Your task to perform on an android device: toggle improve location accuracy Image 0: 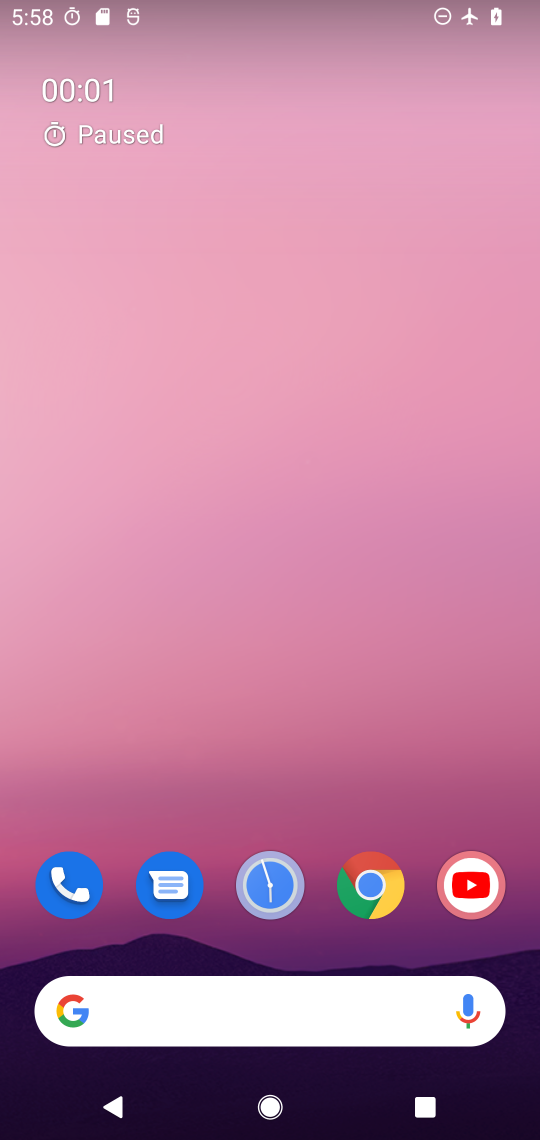
Step 0: drag from (243, 1019) to (243, 177)
Your task to perform on an android device: toggle improve location accuracy Image 1: 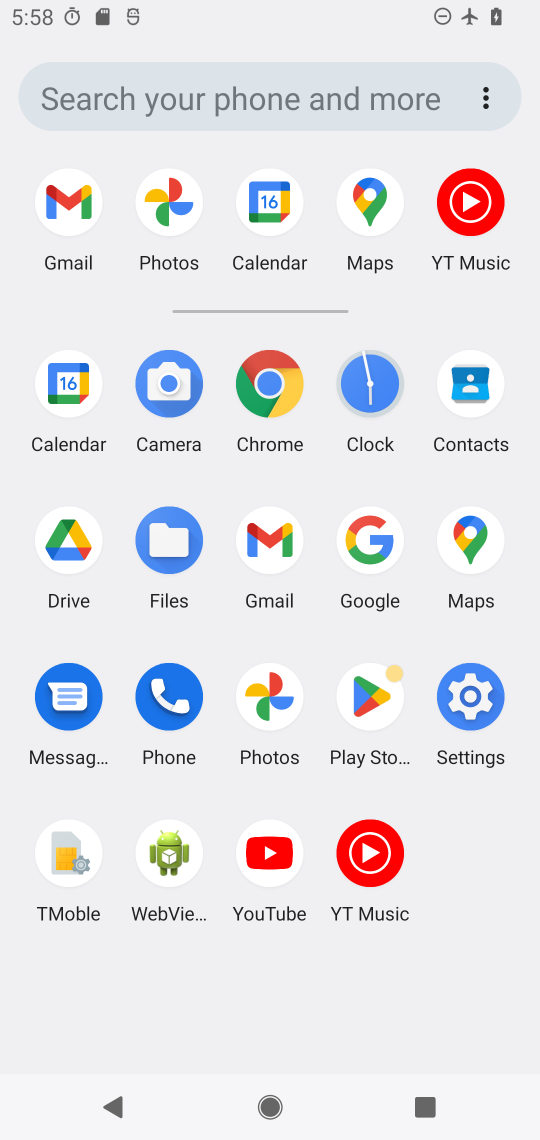
Step 1: click (462, 702)
Your task to perform on an android device: toggle improve location accuracy Image 2: 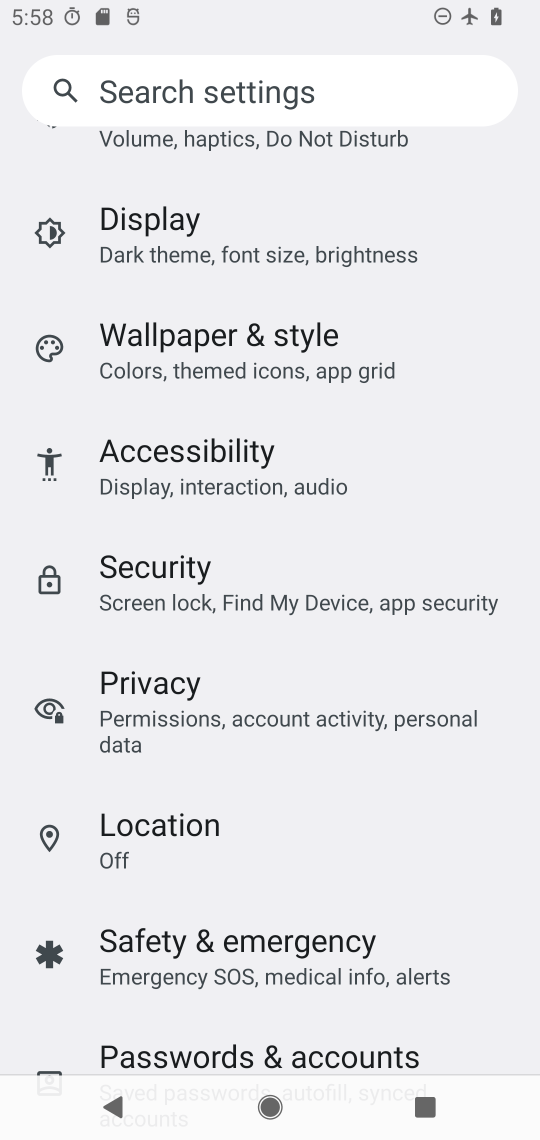
Step 2: drag from (223, 208) to (249, 882)
Your task to perform on an android device: toggle improve location accuracy Image 3: 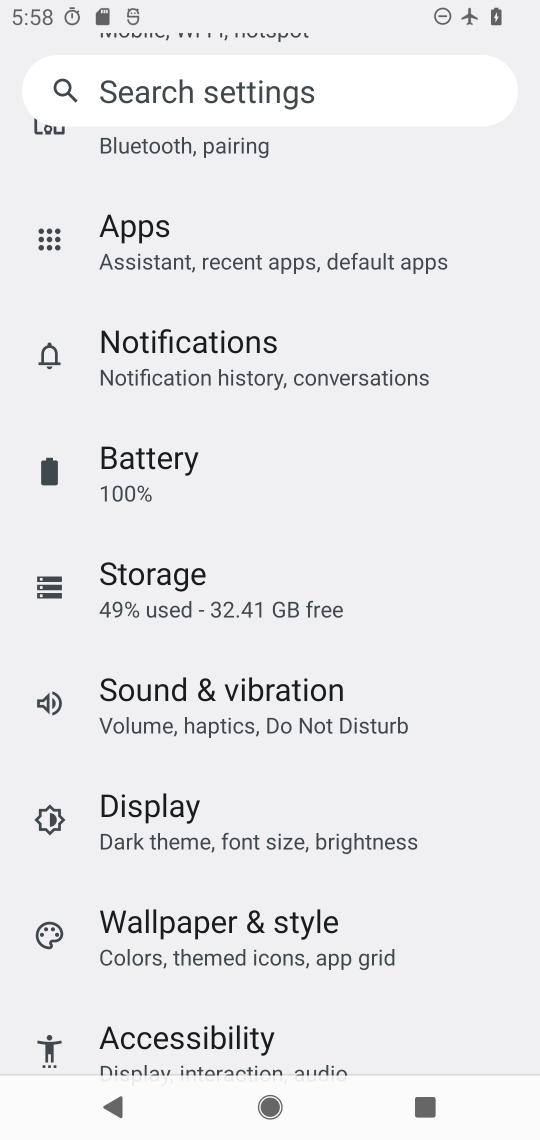
Step 3: drag from (266, 911) to (323, 417)
Your task to perform on an android device: toggle improve location accuracy Image 4: 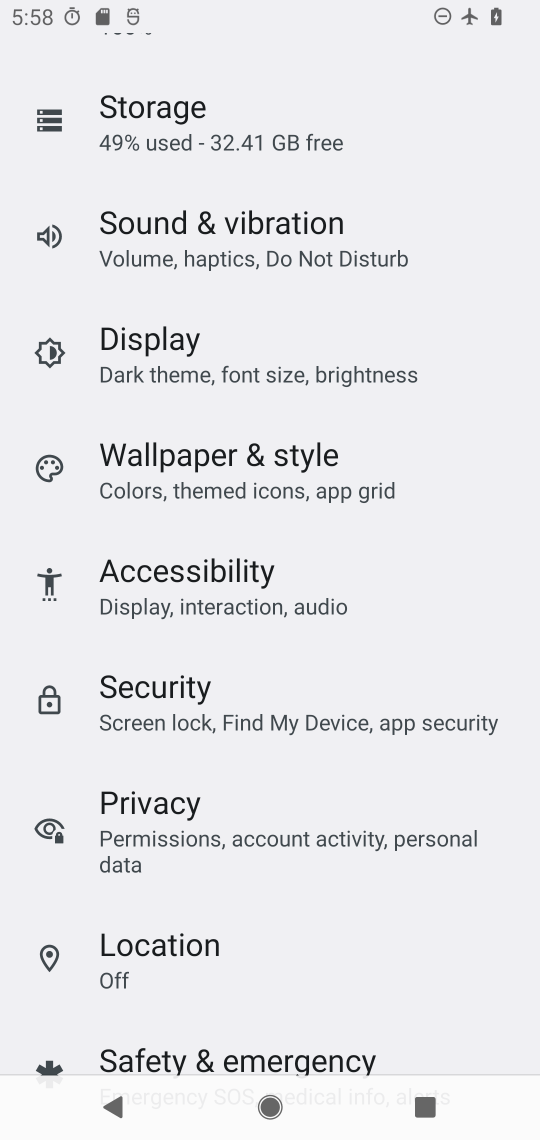
Step 4: click (216, 958)
Your task to perform on an android device: toggle improve location accuracy Image 5: 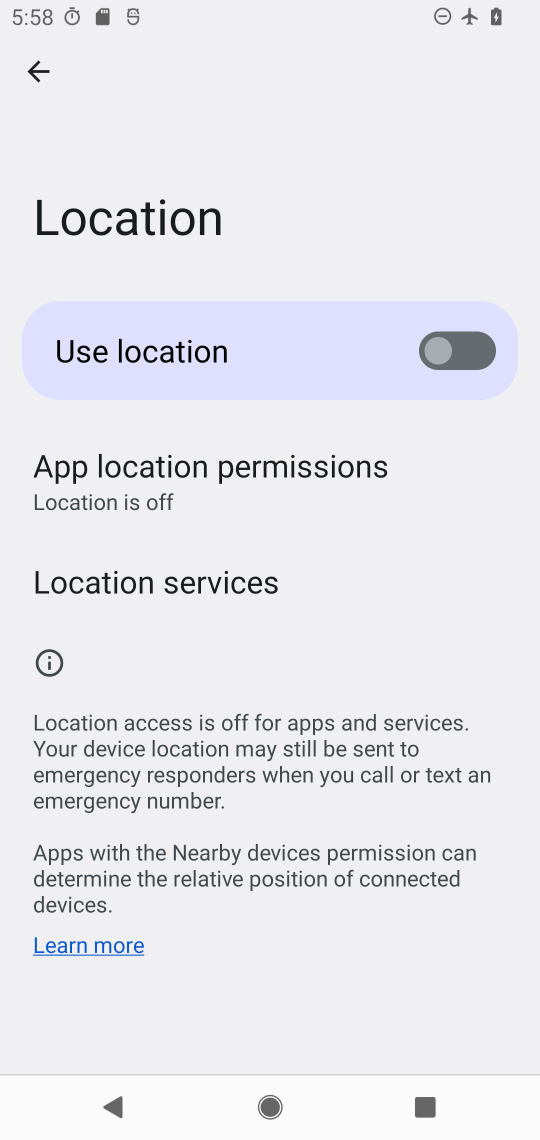
Step 5: click (175, 606)
Your task to perform on an android device: toggle improve location accuracy Image 6: 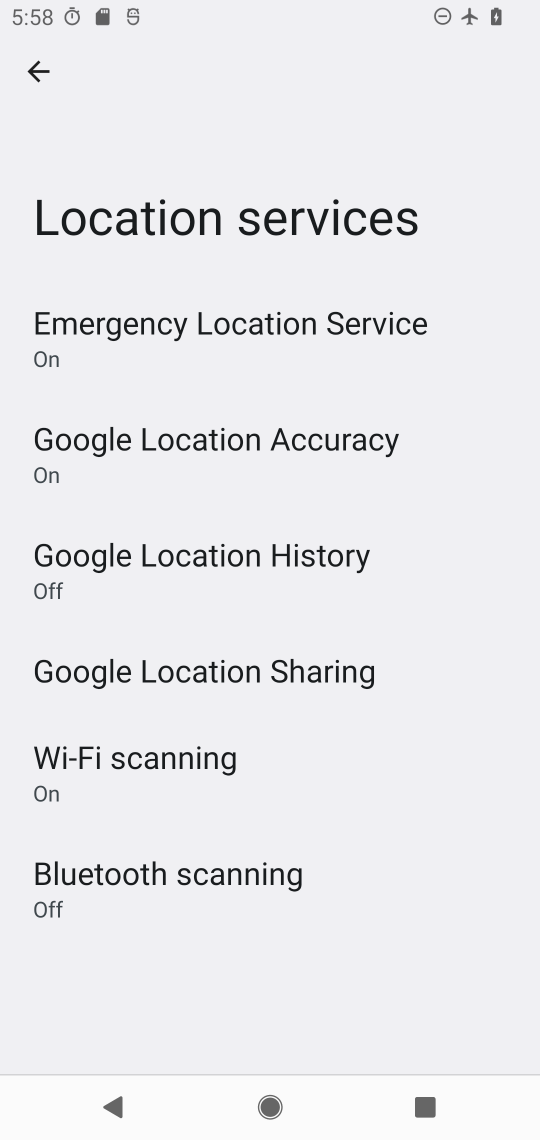
Step 6: click (242, 451)
Your task to perform on an android device: toggle improve location accuracy Image 7: 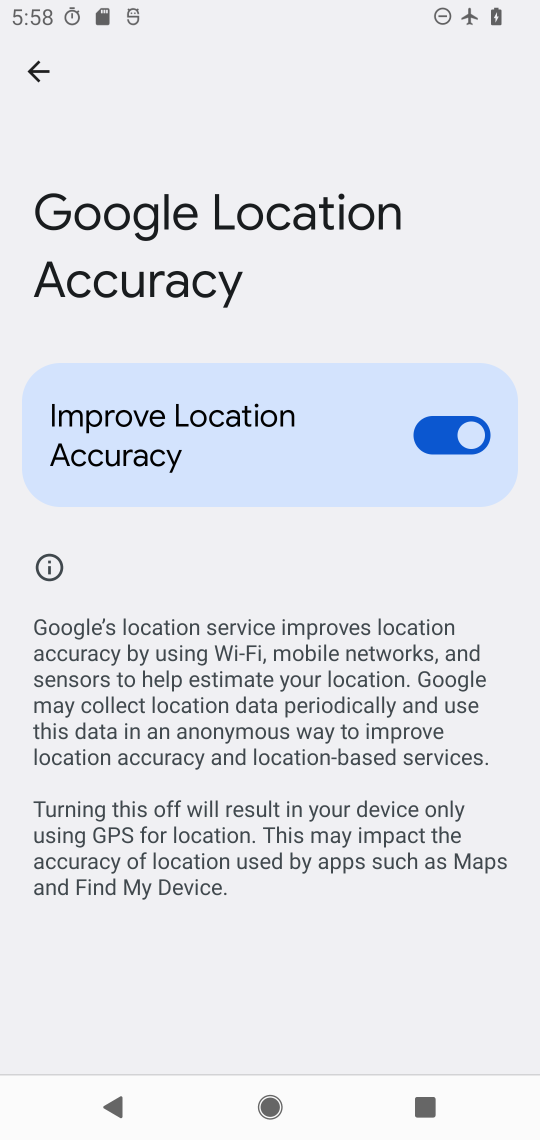
Step 7: click (443, 445)
Your task to perform on an android device: toggle improve location accuracy Image 8: 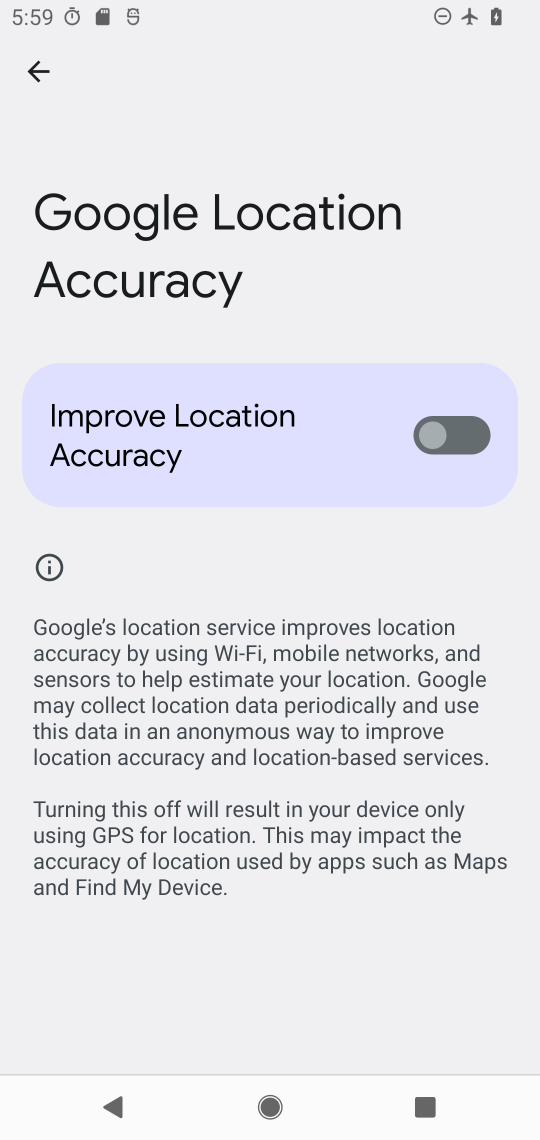
Step 8: task complete